Your task to perform on an android device: Open Wikipedia Image 0: 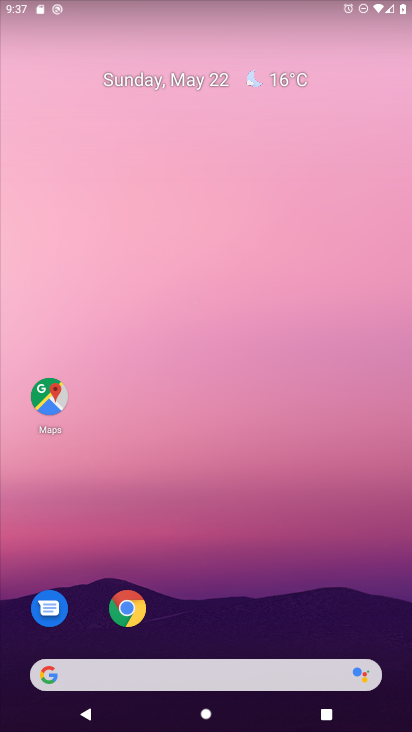
Step 0: click (122, 609)
Your task to perform on an android device: Open Wikipedia Image 1: 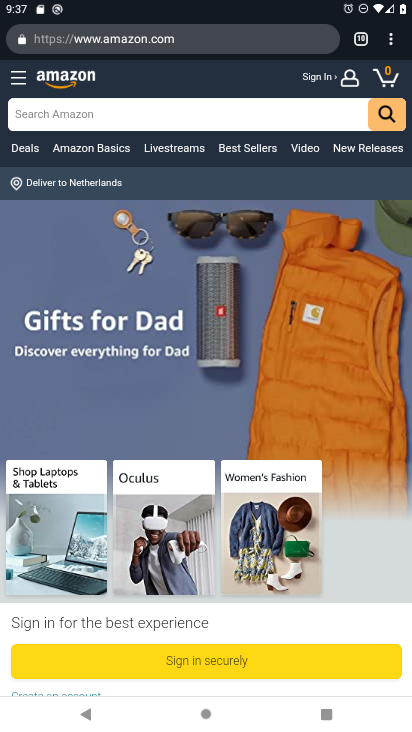
Step 1: click (393, 44)
Your task to perform on an android device: Open Wikipedia Image 2: 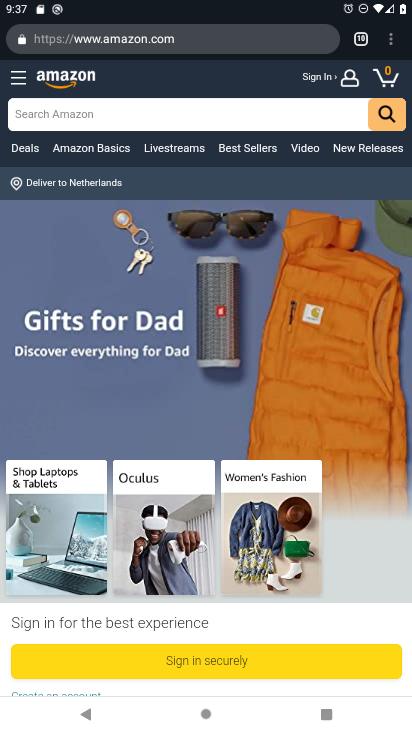
Step 2: click (393, 44)
Your task to perform on an android device: Open Wikipedia Image 3: 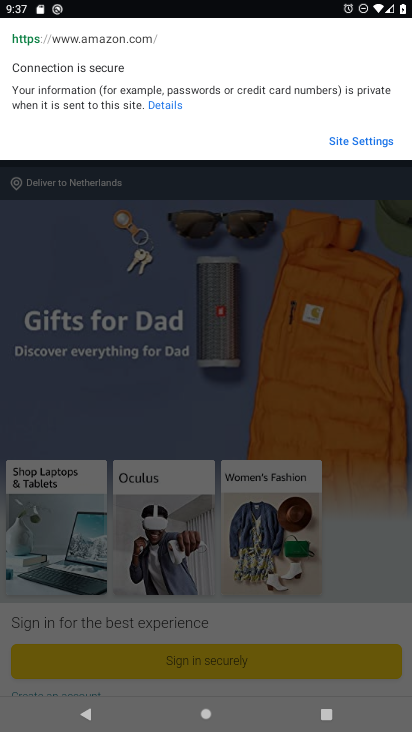
Step 3: click (275, 187)
Your task to perform on an android device: Open Wikipedia Image 4: 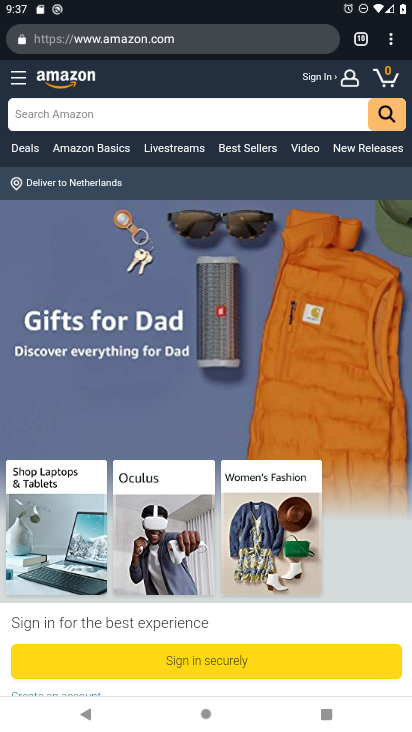
Step 4: click (393, 45)
Your task to perform on an android device: Open Wikipedia Image 5: 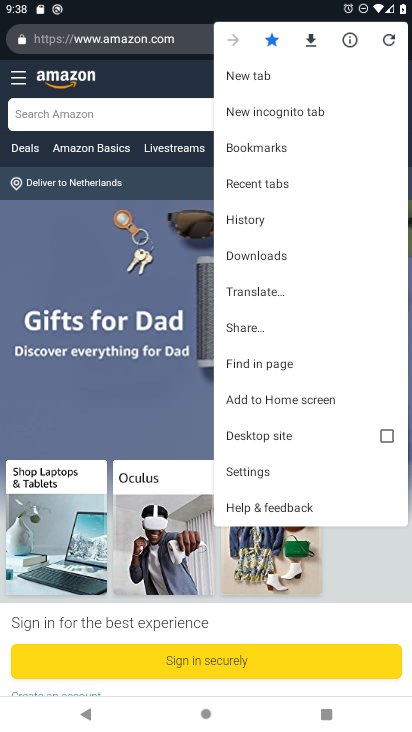
Step 5: click (249, 75)
Your task to perform on an android device: Open Wikipedia Image 6: 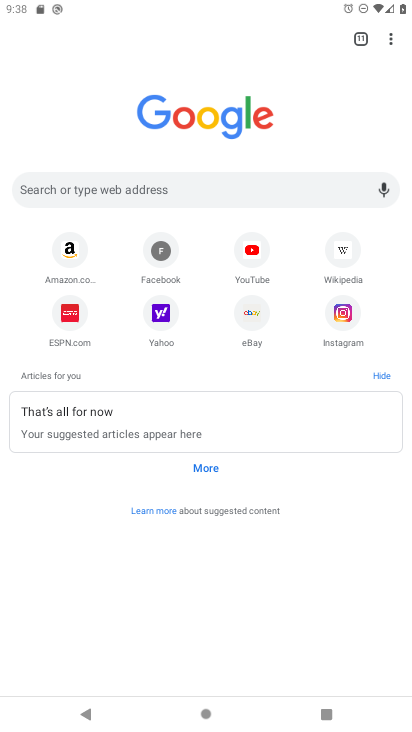
Step 6: click (345, 245)
Your task to perform on an android device: Open Wikipedia Image 7: 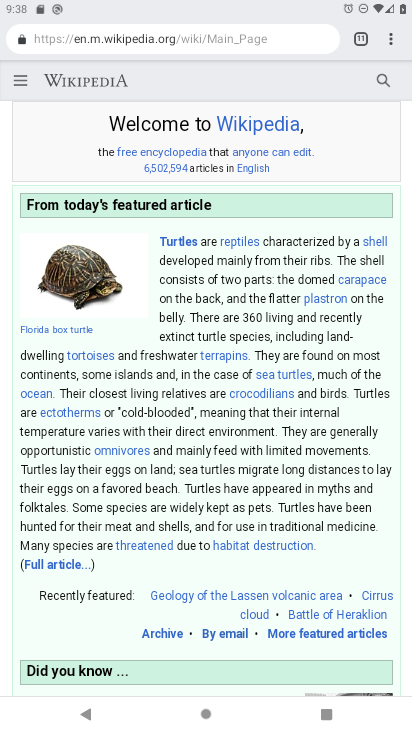
Step 7: task complete